Your task to perform on an android device: Open Chrome and go to settings Image 0: 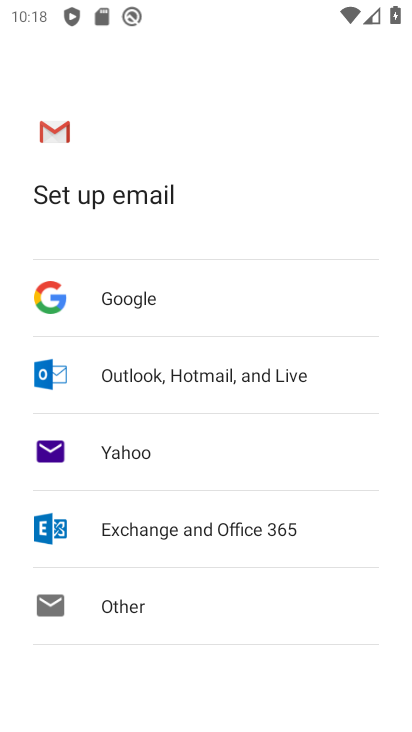
Step 0: press home button
Your task to perform on an android device: Open Chrome and go to settings Image 1: 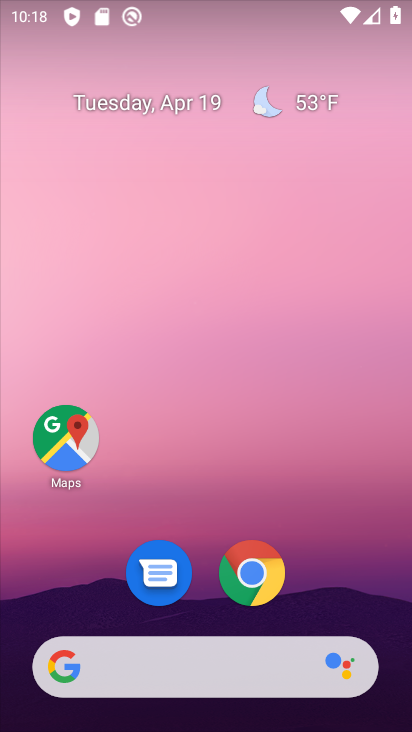
Step 1: click (252, 574)
Your task to perform on an android device: Open Chrome and go to settings Image 2: 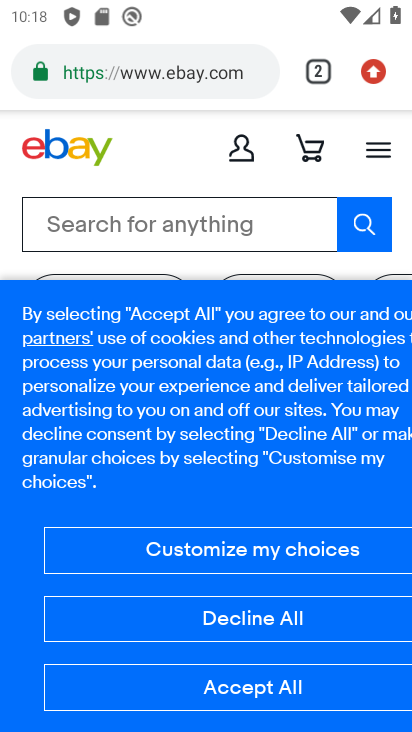
Step 2: click (372, 70)
Your task to perform on an android device: Open Chrome and go to settings Image 3: 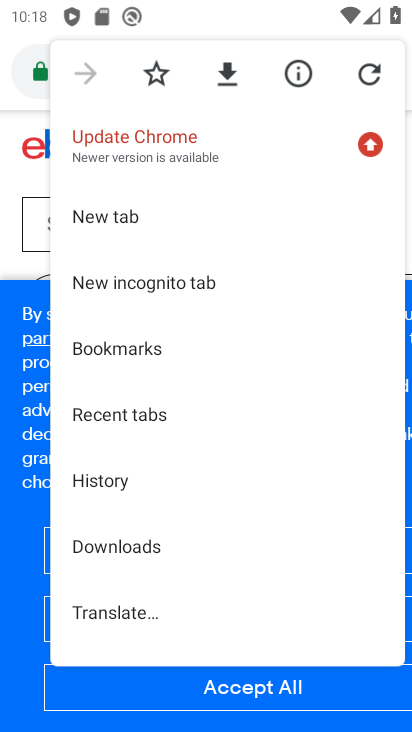
Step 3: drag from (157, 587) to (180, 219)
Your task to perform on an android device: Open Chrome and go to settings Image 4: 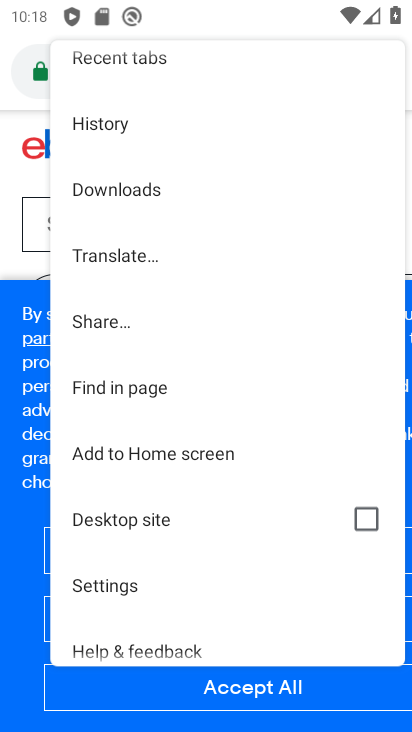
Step 4: click (111, 587)
Your task to perform on an android device: Open Chrome and go to settings Image 5: 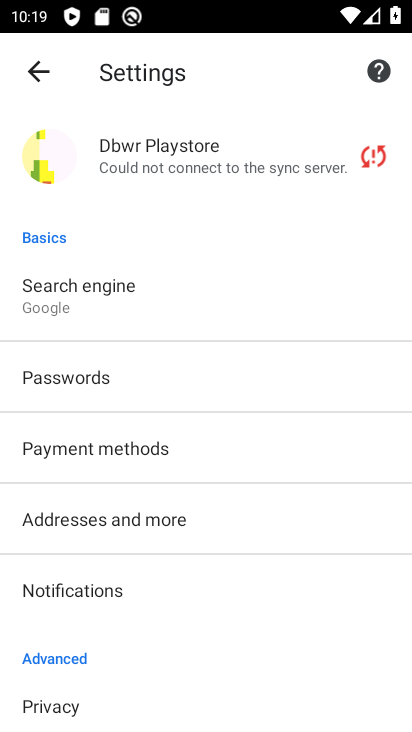
Step 5: task complete